Your task to perform on an android device: Set the phone to "Do not disturb". Image 0: 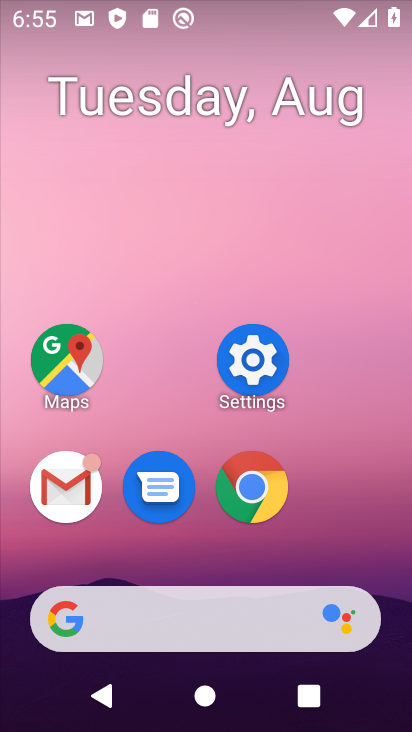
Step 0: click (253, 354)
Your task to perform on an android device: Set the phone to "Do not disturb". Image 1: 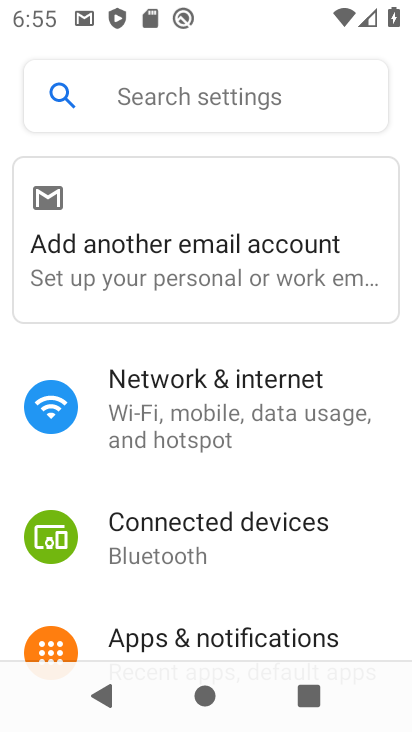
Step 1: drag from (227, 594) to (194, 277)
Your task to perform on an android device: Set the phone to "Do not disturb". Image 2: 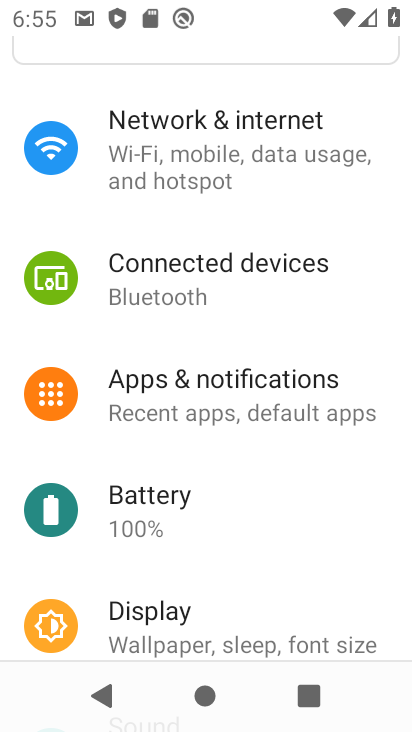
Step 2: drag from (230, 519) to (177, 206)
Your task to perform on an android device: Set the phone to "Do not disturb". Image 3: 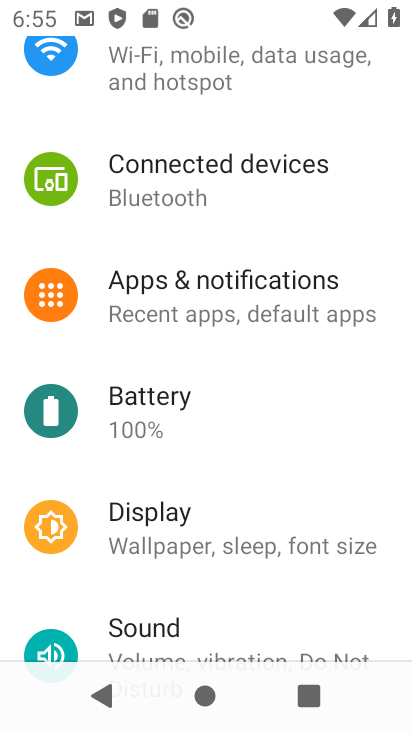
Step 3: drag from (258, 581) to (200, 244)
Your task to perform on an android device: Set the phone to "Do not disturb". Image 4: 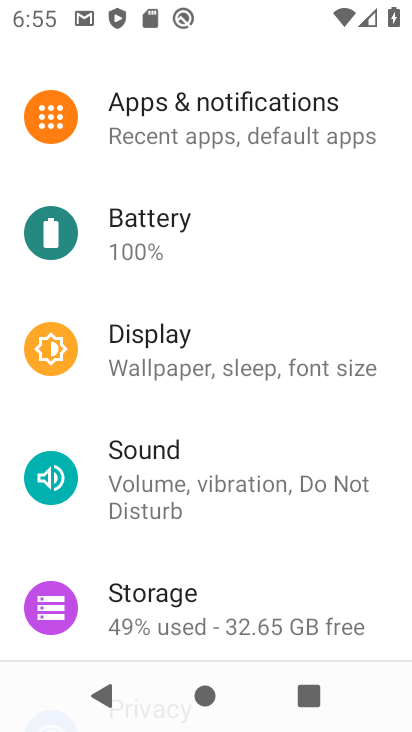
Step 4: click (134, 446)
Your task to perform on an android device: Set the phone to "Do not disturb". Image 5: 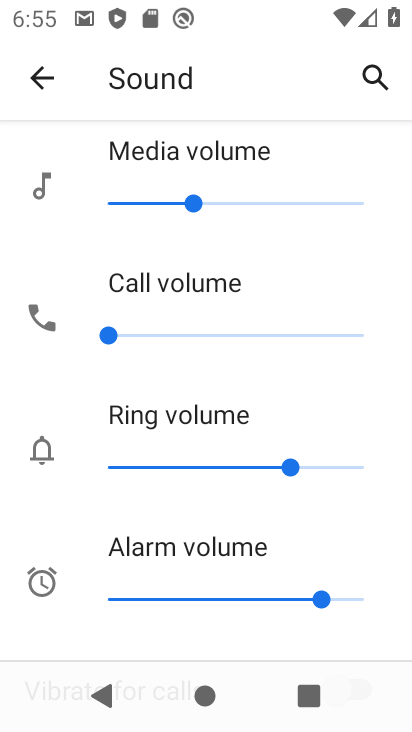
Step 5: drag from (195, 517) to (129, 194)
Your task to perform on an android device: Set the phone to "Do not disturb". Image 6: 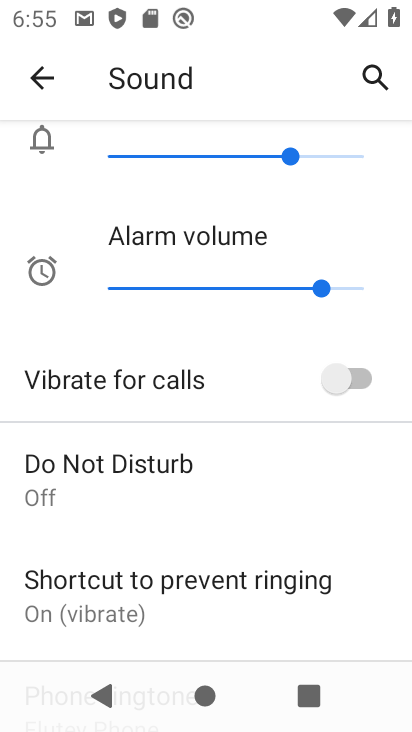
Step 6: click (124, 466)
Your task to perform on an android device: Set the phone to "Do not disturb". Image 7: 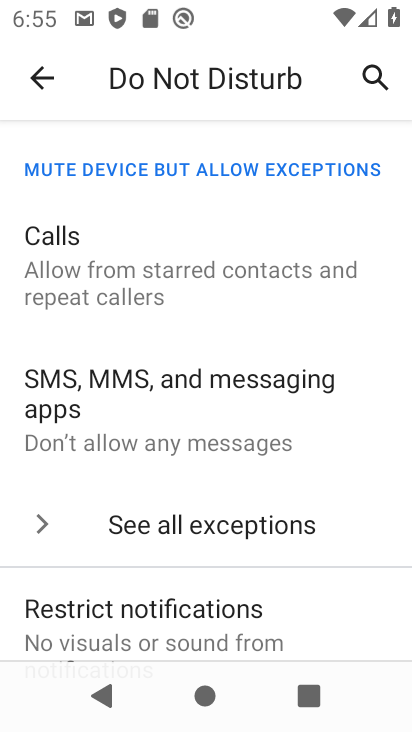
Step 7: drag from (234, 543) to (182, 137)
Your task to perform on an android device: Set the phone to "Do not disturb". Image 8: 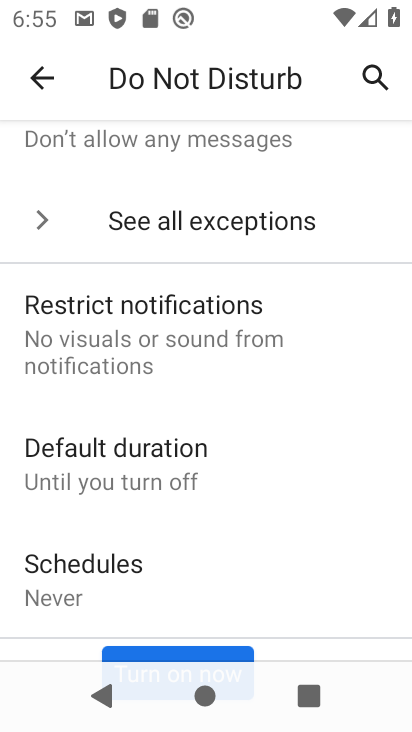
Step 8: drag from (182, 541) to (158, 197)
Your task to perform on an android device: Set the phone to "Do not disturb". Image 9: 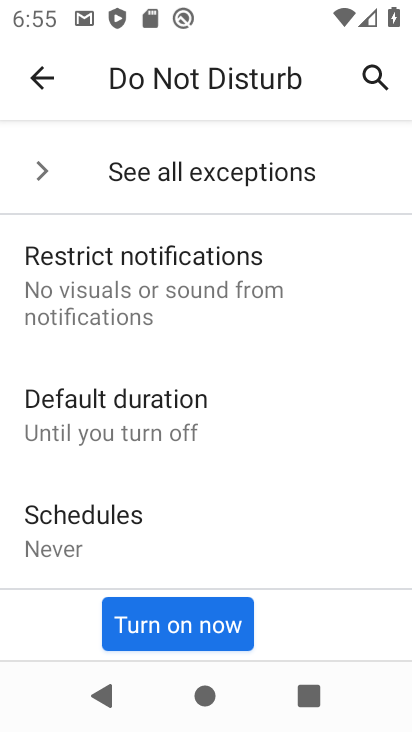
Step 9: click (176, 625)
Your task to perform on an android device: Set the phone to "Do not disturb". Image 10: 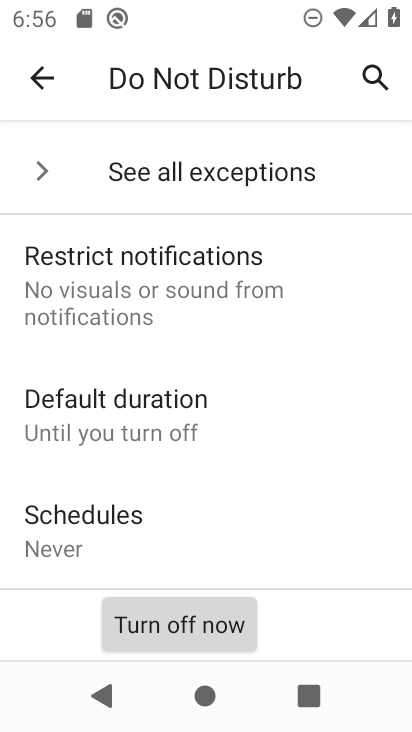
Step 10: task complete